Your task to perform on an android device: Open Google Chrome and click the shortcut for Amazon.com Image 0: 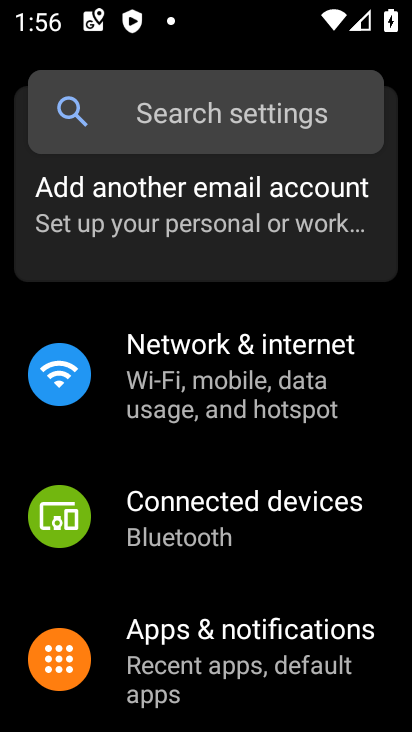
Step 0: press home button
Your task to perform on an android device: Open Google Chrome and click the shortcut for Amazon.com Image 1: 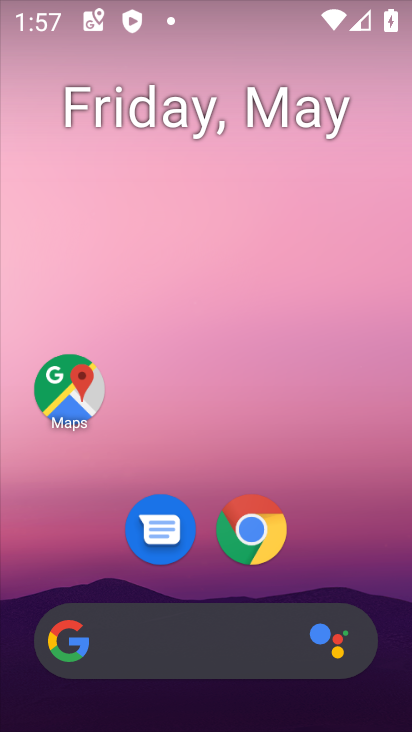
Step 1: click (251, 515)
Your task to perform on an android device: Open Google Chrome and click the shortcut for Amazon.com Image 2: 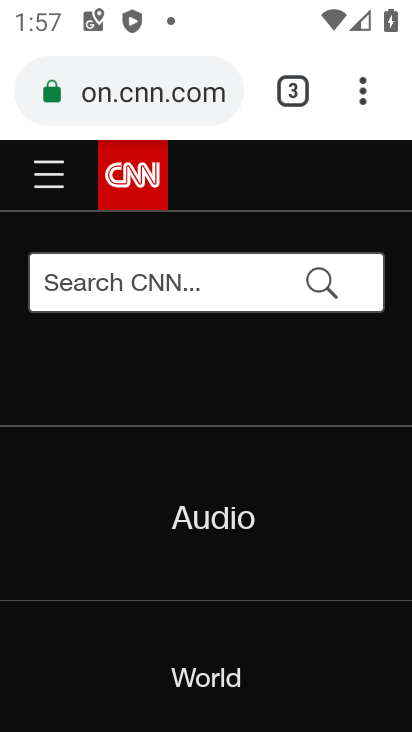
Step 2: click (173, 109)
Your task to perform on an android device: Open Google Chrome and click the shortcut for Amazon.com Image 3: 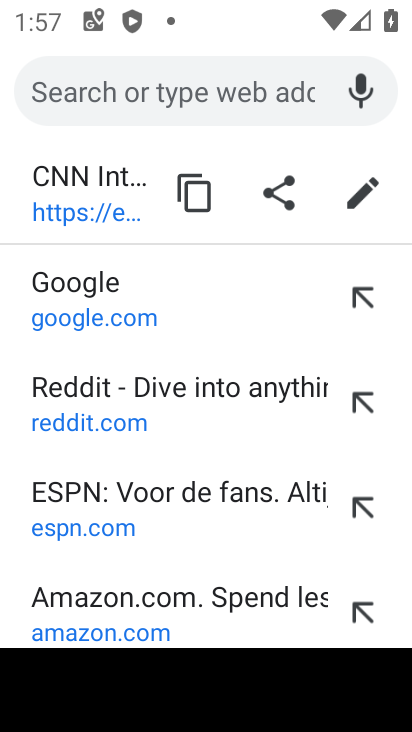
Step 3: type "amazone"
Your task to perform on an android device: Open Google Chrome and click the shortcut for Amazon.com Image 4: 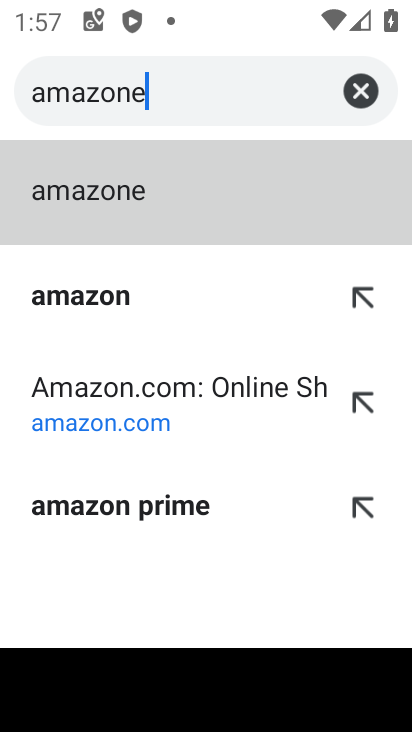
Step 4: click (216, 396)
Your task to perform on an android device: Open Google Chrome and click the shortcut for Amazon.com Image 5: 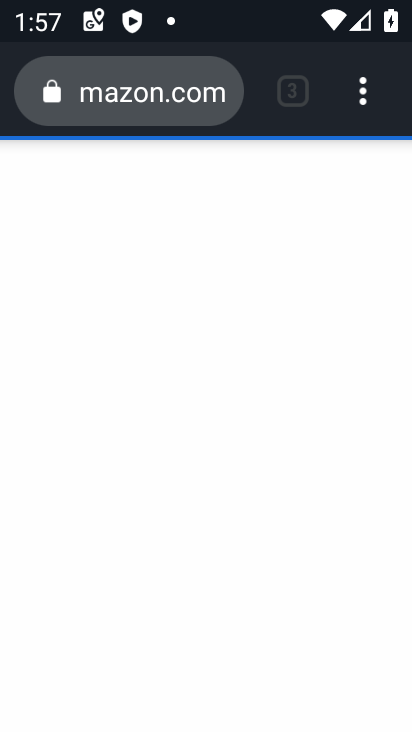
Step 5: task complete